Your task to perform on an android device: move an email to a new category in the gmail app Image 0: 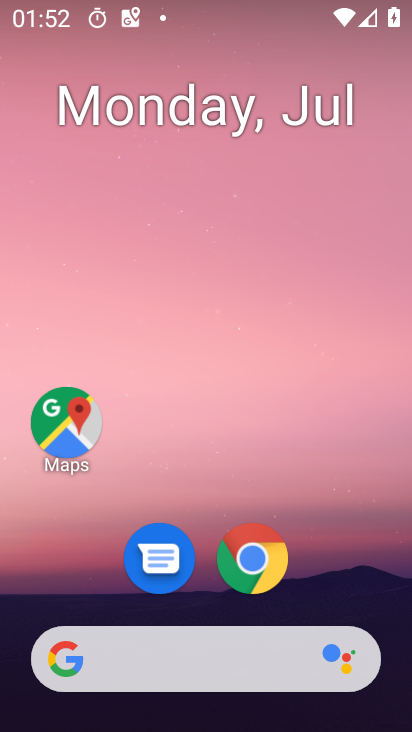
Step 0: drag from (54, 527) to (120, 33)
Your task to perform on an android device: move an email to a new category in the gmail app Image 1: 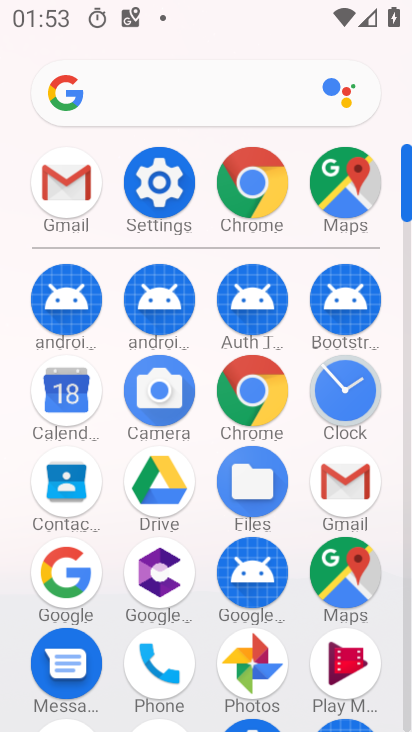
Step 1: click (16, 179)
Your task to perform on an android device: move an email to a new category in the gmail app Image 2: 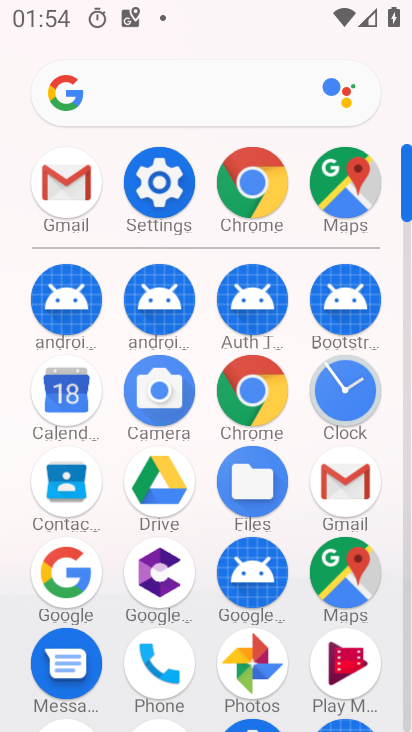
Step 2: click (63, 159)
Your task to perform on an android device: move an email to a new category in the gmail app Image 3: 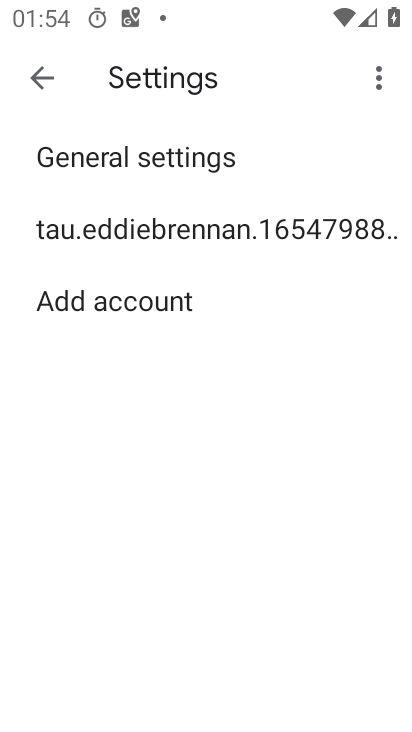
Step 3: click (38, 79)
Your task to perform on an android device: move an email to a new category in the gmail app Image 4: 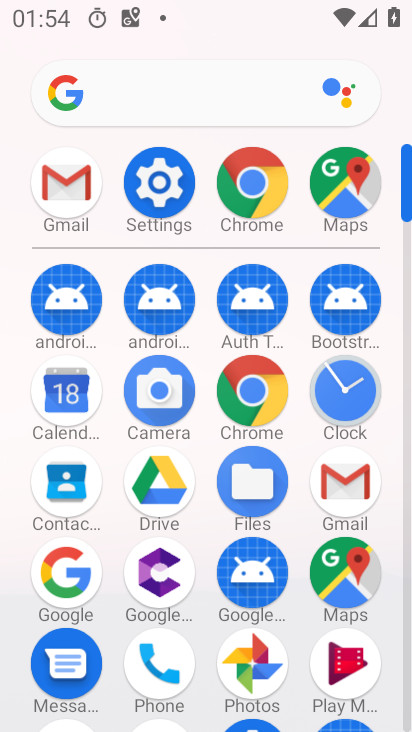
Step 4: click (48, 201)
Your task to perform on an android device: move an email to a new category in the gmail app Image 5: 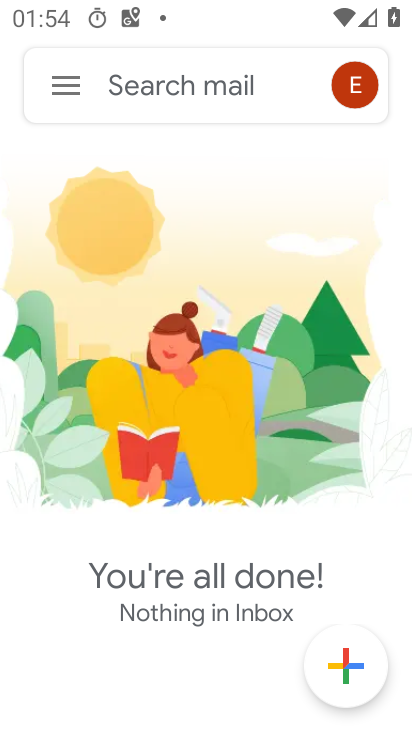
Step 5: click (72, 84)
Your task to perform on an android device: move an email to a new category in the gmail app Image 6: 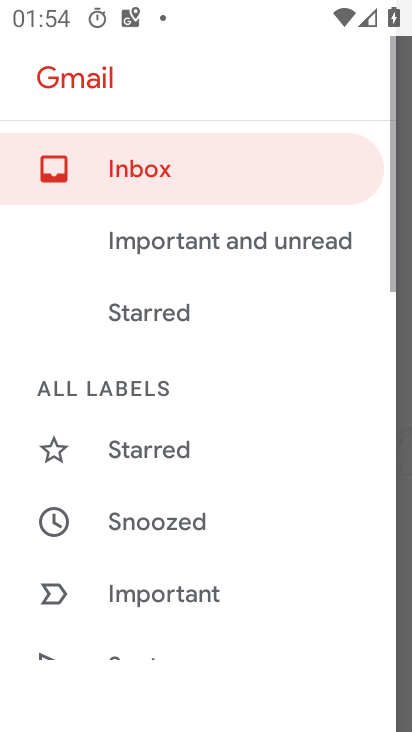
Step 6: drag from (156, 597) to (262, 17)
Your task to perform on an android device: move an email to a new category in the gmail app Image 7: 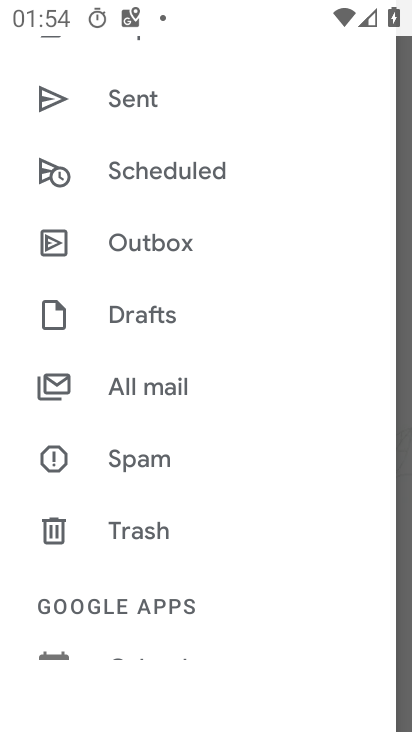
Step 7: click (171, 385)
Your task to perform on an android device: move an email to a new category in the gmail app Image 8: 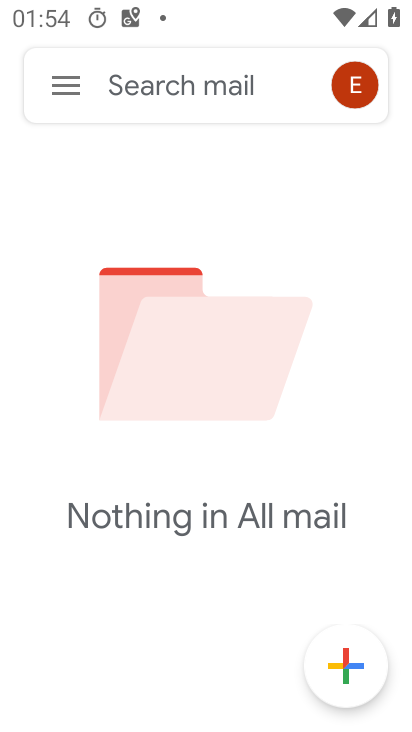
Step 8: task complete